Your task to perform on an android device: turn on notifications settings in the gmail app Image 0: 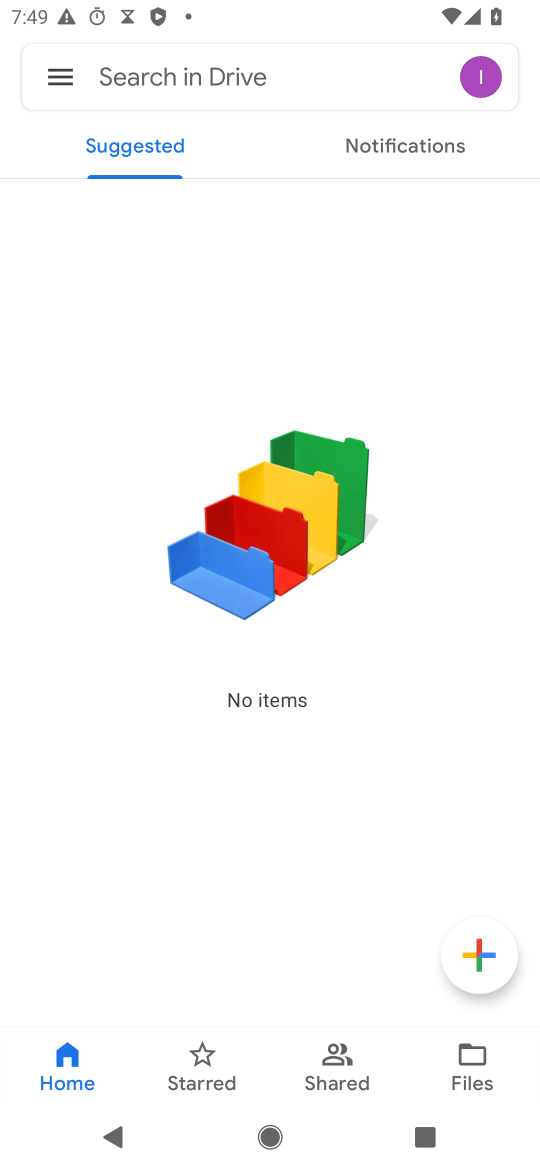
Step 0: press home button
Your task to perform on an android device: turn on notifications settings in the gmail app Image 1: 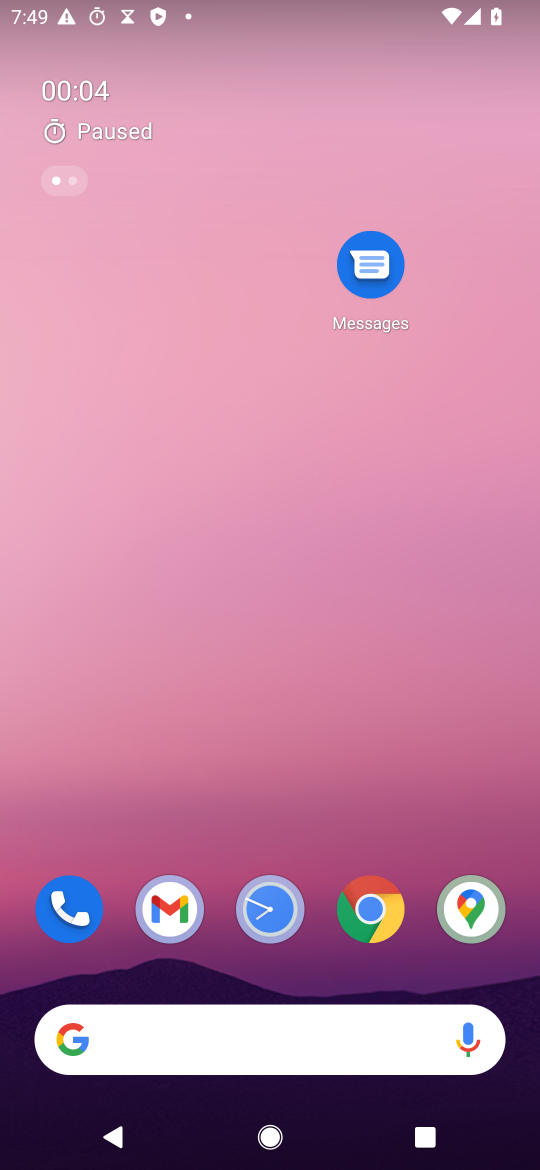
Step 1: click (170, 916)
Your task to perform on an android device: turn on notifications settings in the gmail app Image 2: 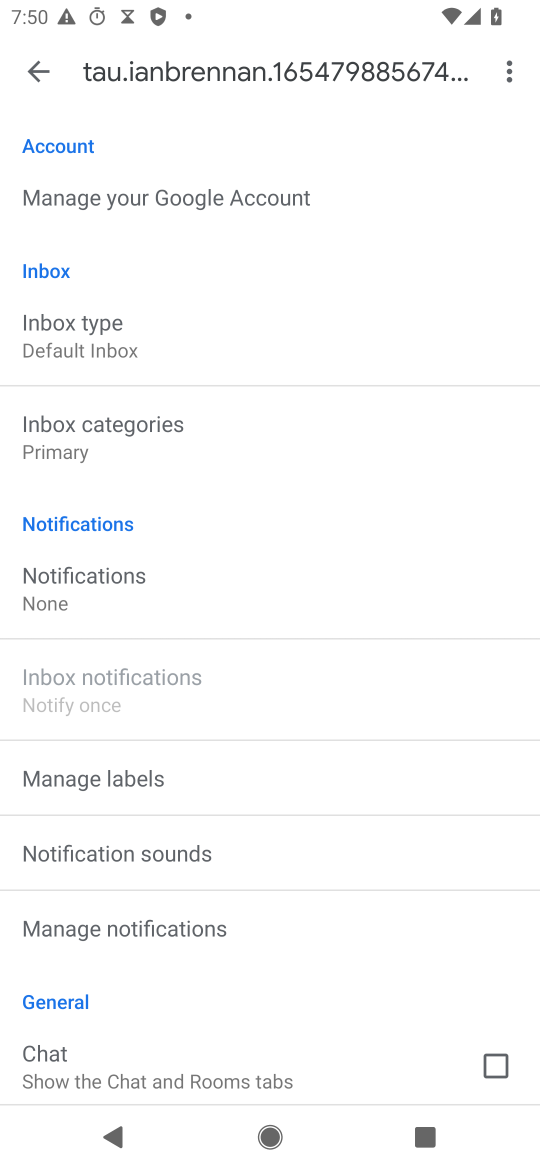
Step 2: click (97, 593)
Your task to perform on an android device: turn on notifications settings in the gmail app Image 3: 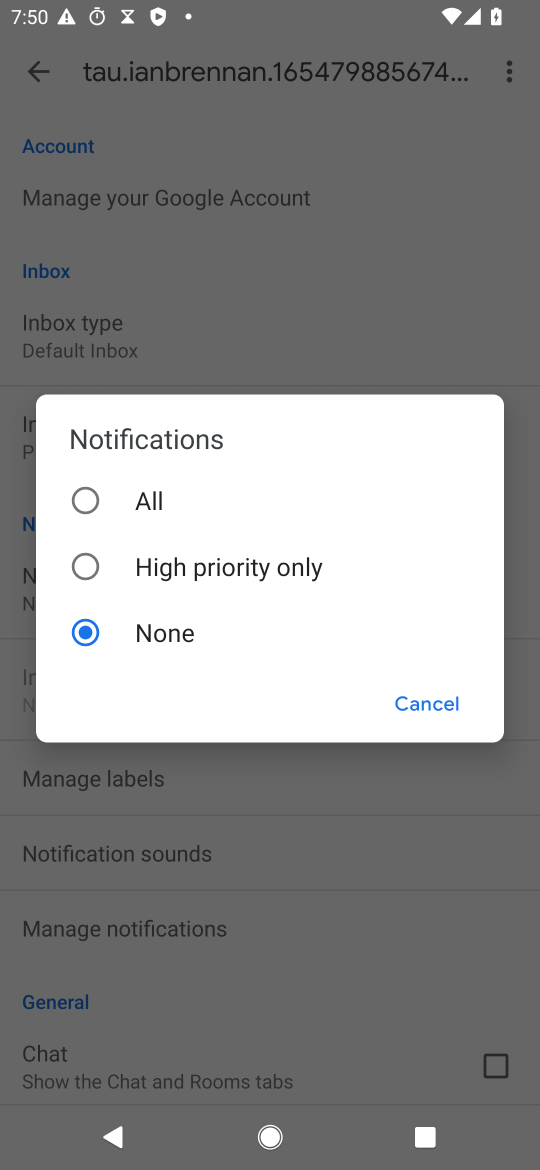
Step 3: click (83, 500)
Your task to perform on an android device: turn on notifications settings in the gmail app Image 4: 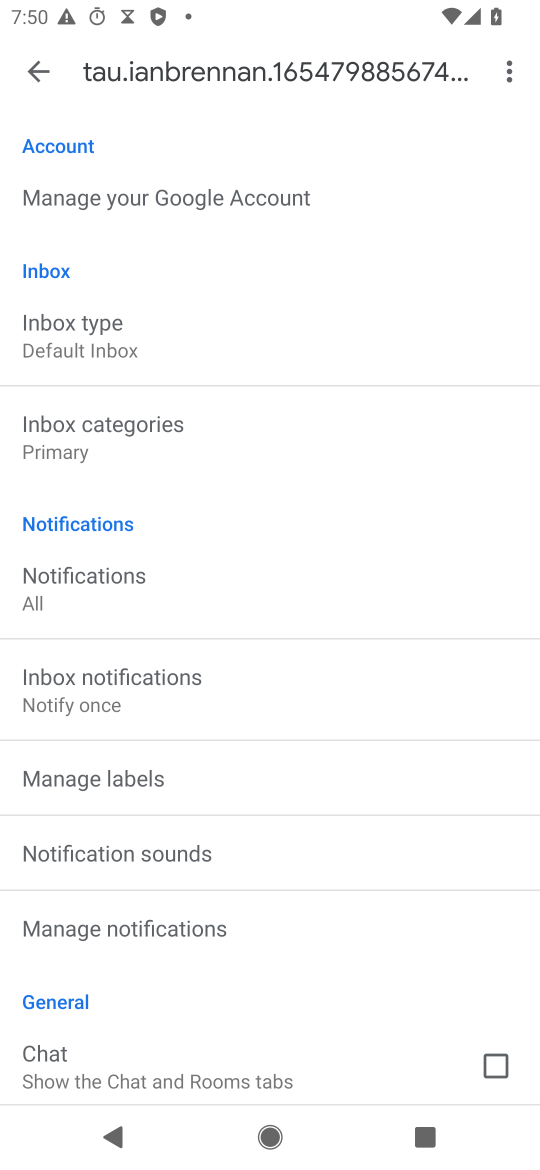
Step 4: task complete